Your task to perform on an android device: Do I have any events tomorrow? Image 0: 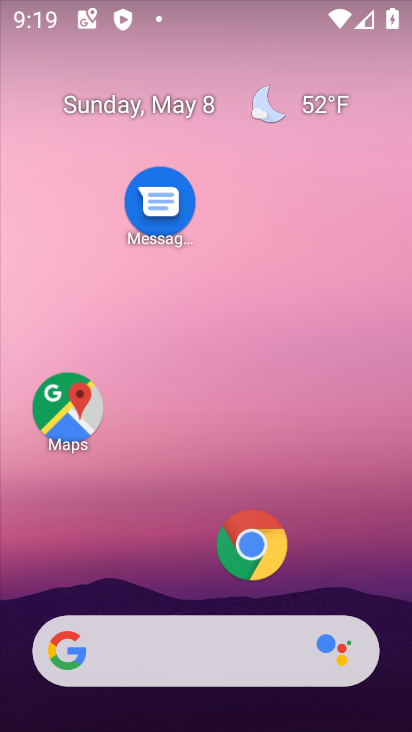
Step 0: drag from (192, 581) to (187, 5)
Your task to perform on an android device: Do I have any events tomorrow? Image 1: 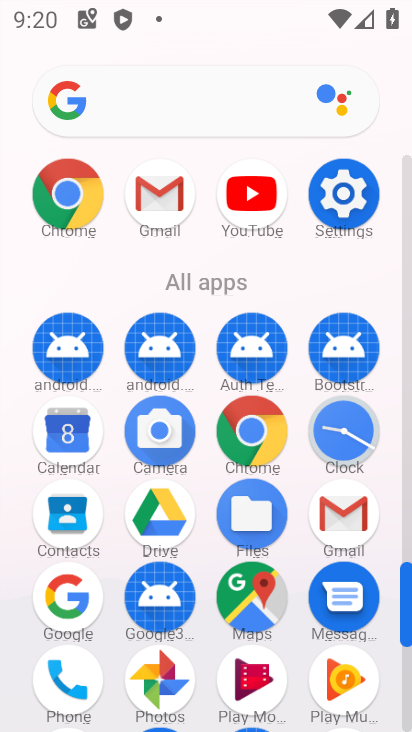
Step 1: drag from (212, 652) to (226, 81)
Your task to perform on an android device: Do I have any events tomorrow? Image 2: 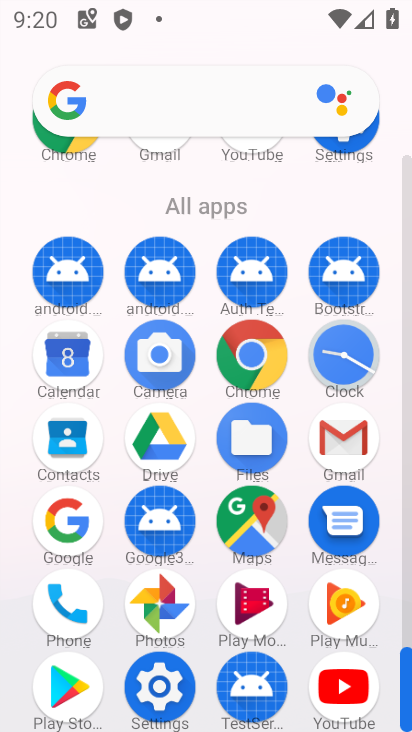
Step 2: click (79, 370)
Your task to perform on an android device: Do I have any events tomorrow? Image 3: 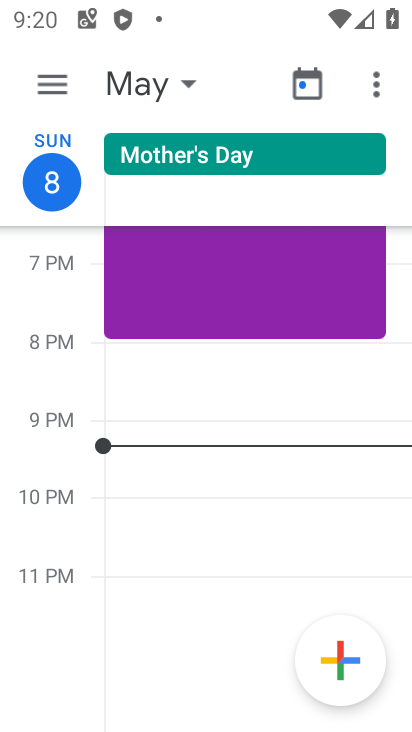
Step 3: click (64, 93)
Your task to perform on an android device: Do I have any events tomorrow? Image 4: 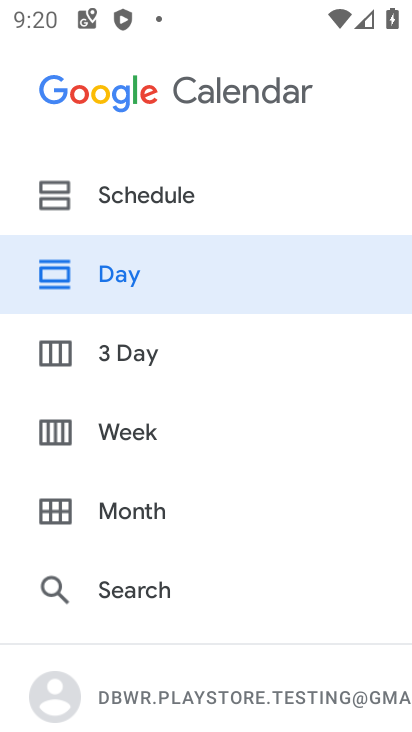
Step 4: click (144, 250)
Your task to perform on an android device: Do I have any events tomorrow? Image 5: 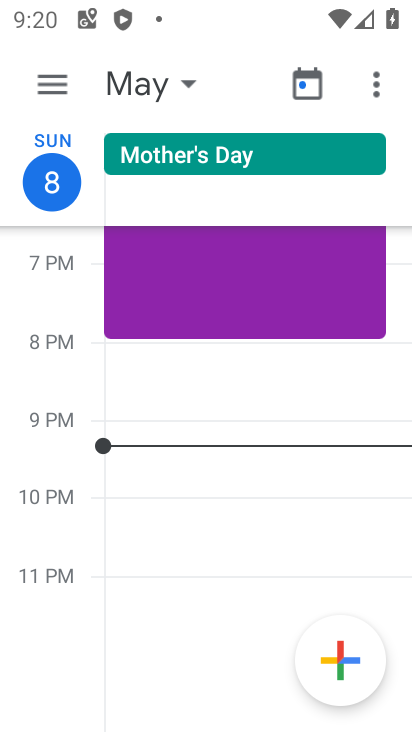
Step 5: click (38, 79)
Your task to perform on an android device: Do I have any events tomorrow? Image 6: 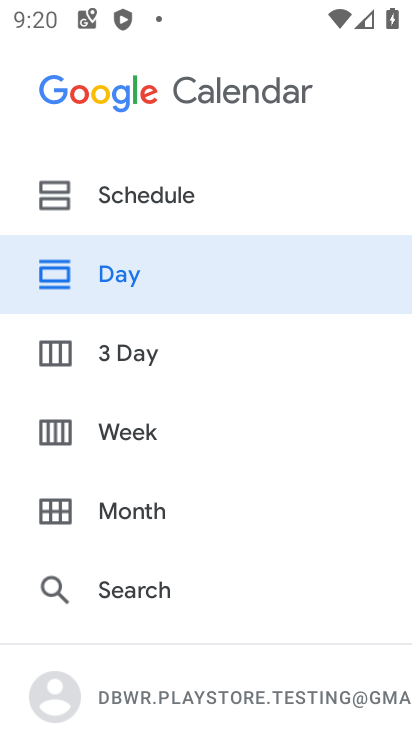
Step 6: click (122, 501)
Your task to perform on an android device: Do I have any events tomorrow? Image 7: 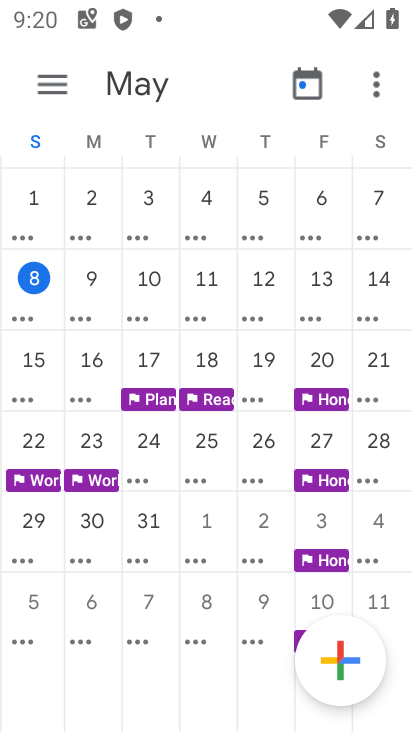
Step 7: click (88, 282)
Your task to perform on an android device: Do I have any events tomorrow? Image 8: 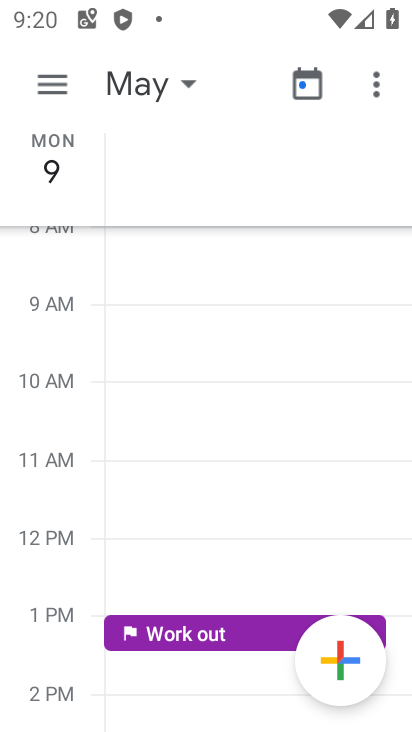
Step 8: task complete